Your task to perform on an android device: Open display settings Image 0: 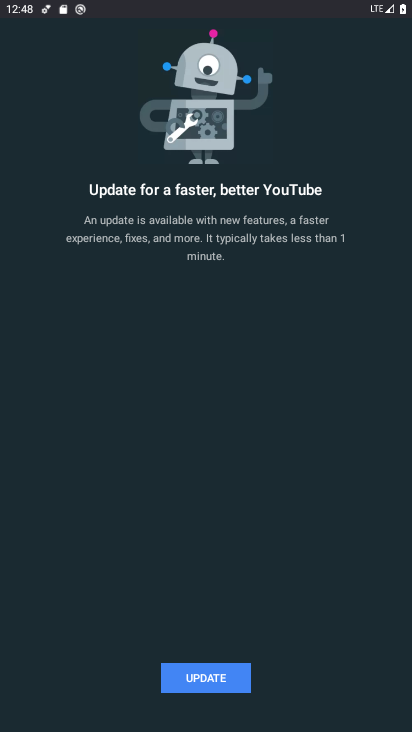
Step 0: press home button
Your task to perform on an android device: Open display settings Image 1: 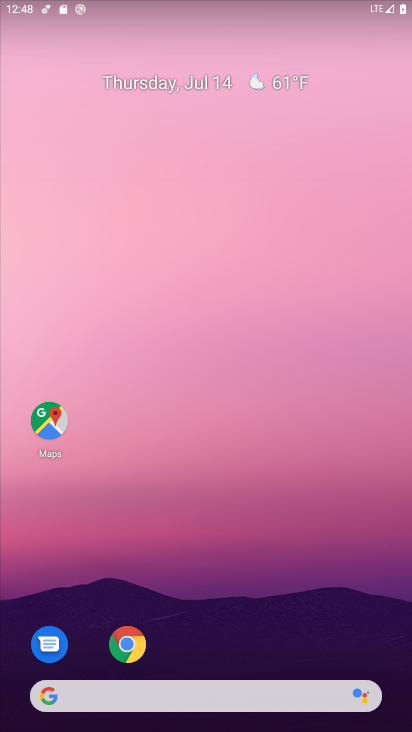
Step 1: click (270, 267)
Your task to perform on an android device: Open display settings Image 2: 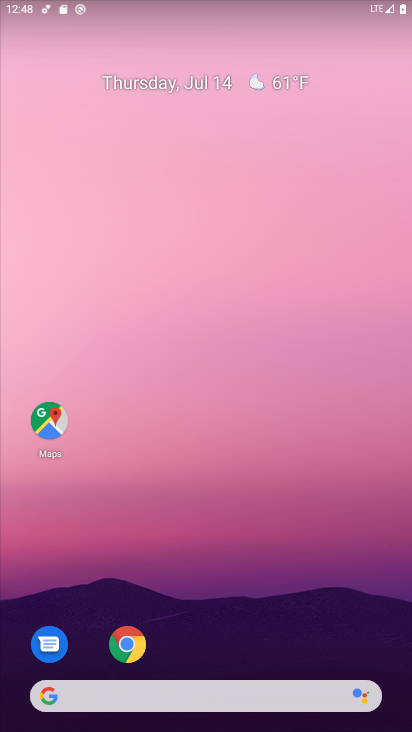
Step 2: drag from (267, 606) to (268, 45)
Your task to perform on an android device: Open display settings Image 3: 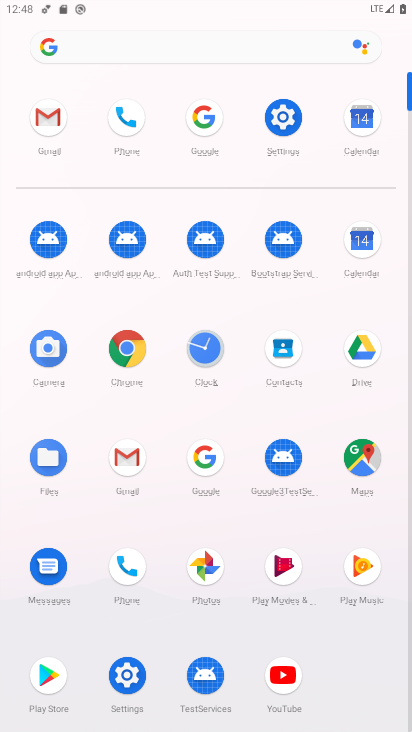
Step 3: click (282, 100)
Your task to perform on an android device: Open display settings Image 4: 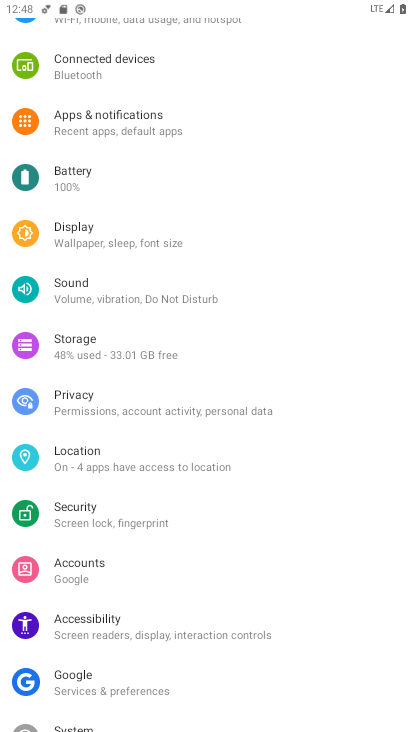
Step 4: click (96, 243)
Your task to perform on an android device: Open display settings Image 5: 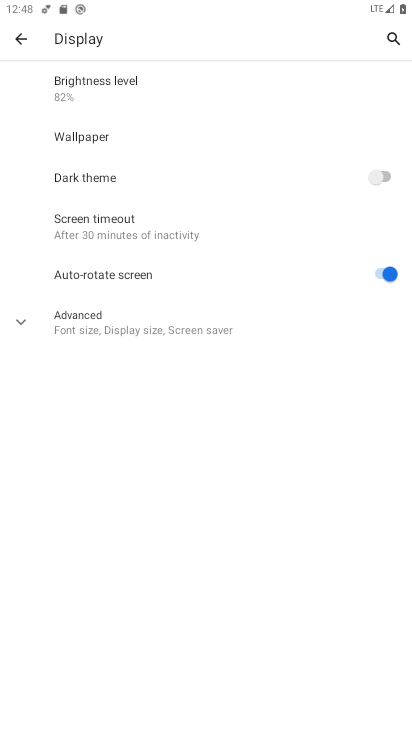
Step 5: task complete